Your task to perform on an android device: Search for sushi restaurants on Maps Image 0: 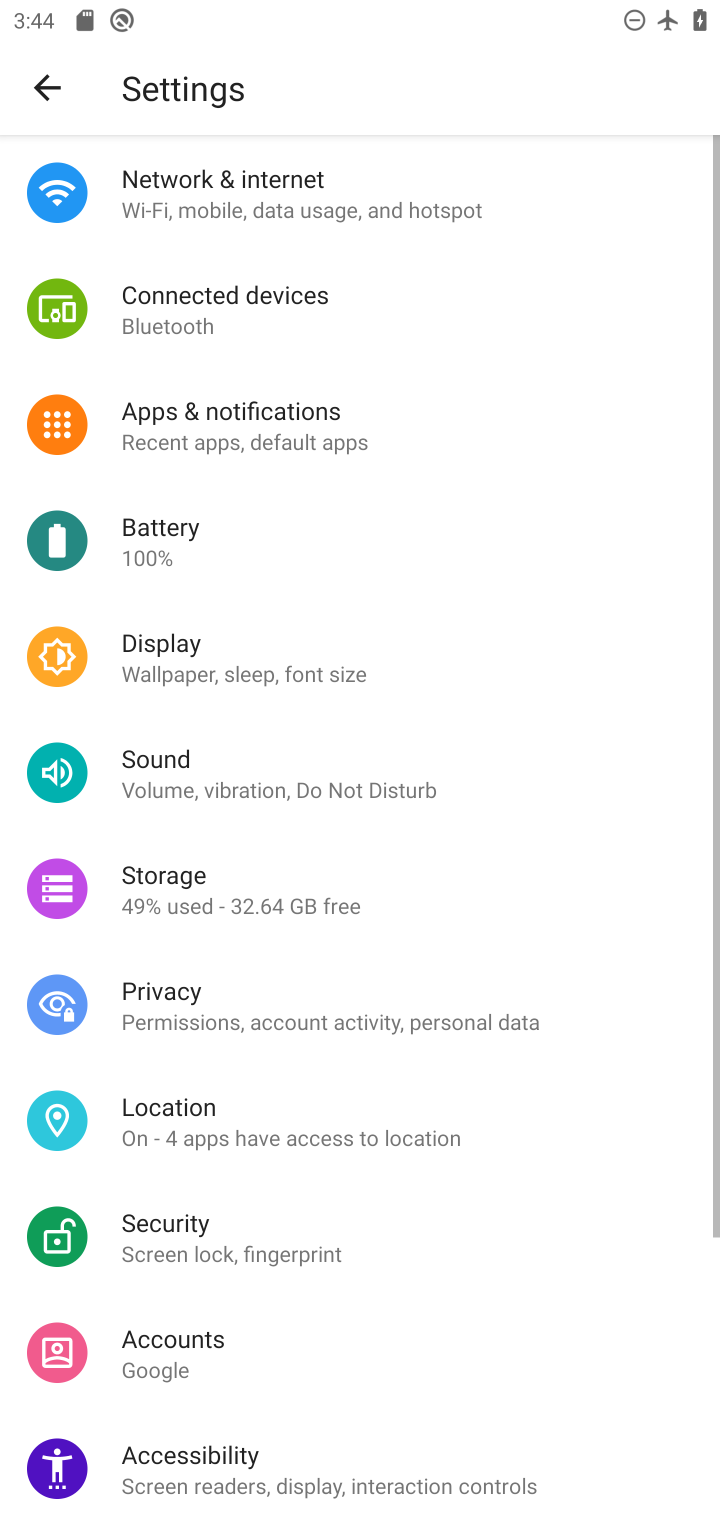
Step 0: press home button
Your task to perform on an android device: Search for sushi restaurants on Maps Image 1: 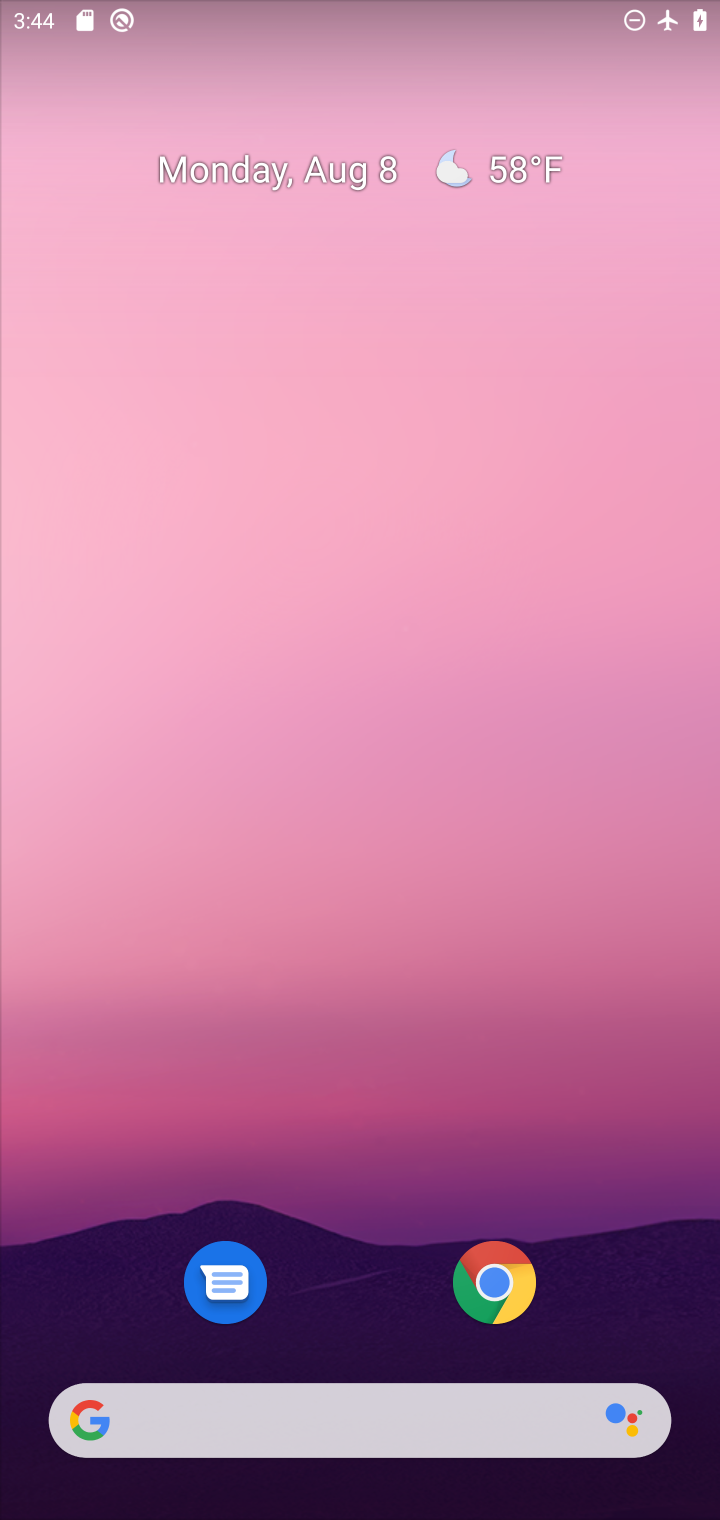
Step 1: drag from (352, 1286) to (458, 315)
Your task to perform on an android device: Search for sushi restaurants on Maps Image 2: 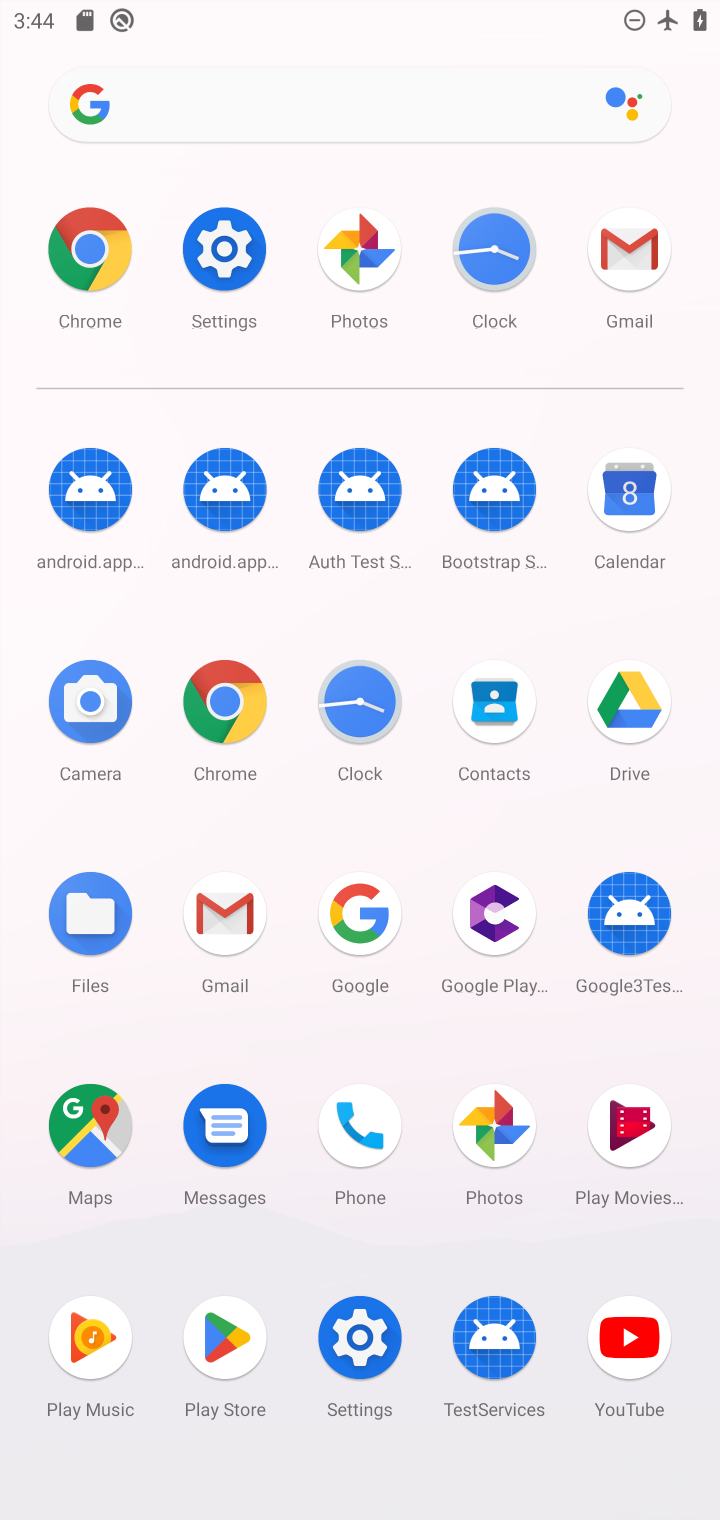
Step 2: click (86, 1119)
Your task to perform on an android device: Search for sushi restaurants on Maps Image 3: 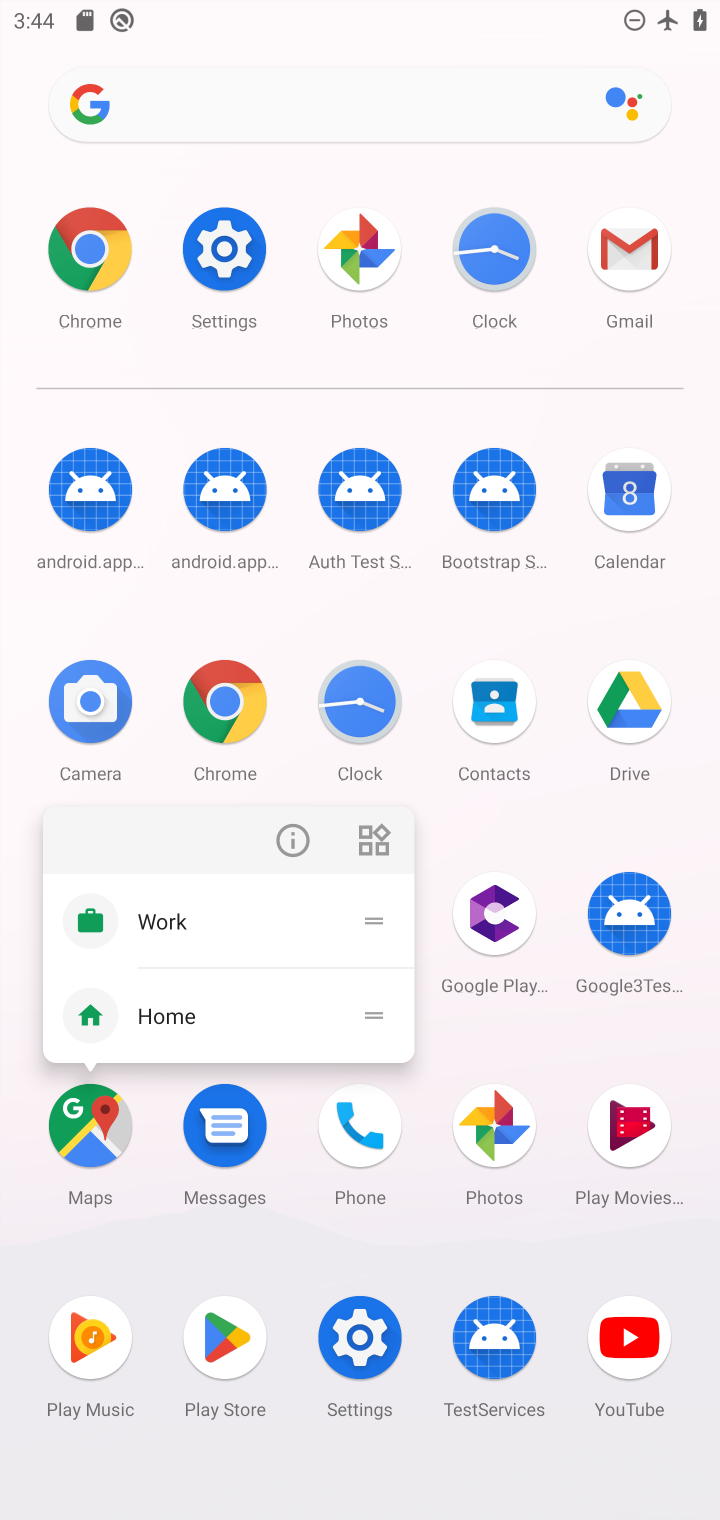
Step 3: click (84, 1125)
Your task to perform on an android device: Search for sushi restaurants on Maps Image 4: 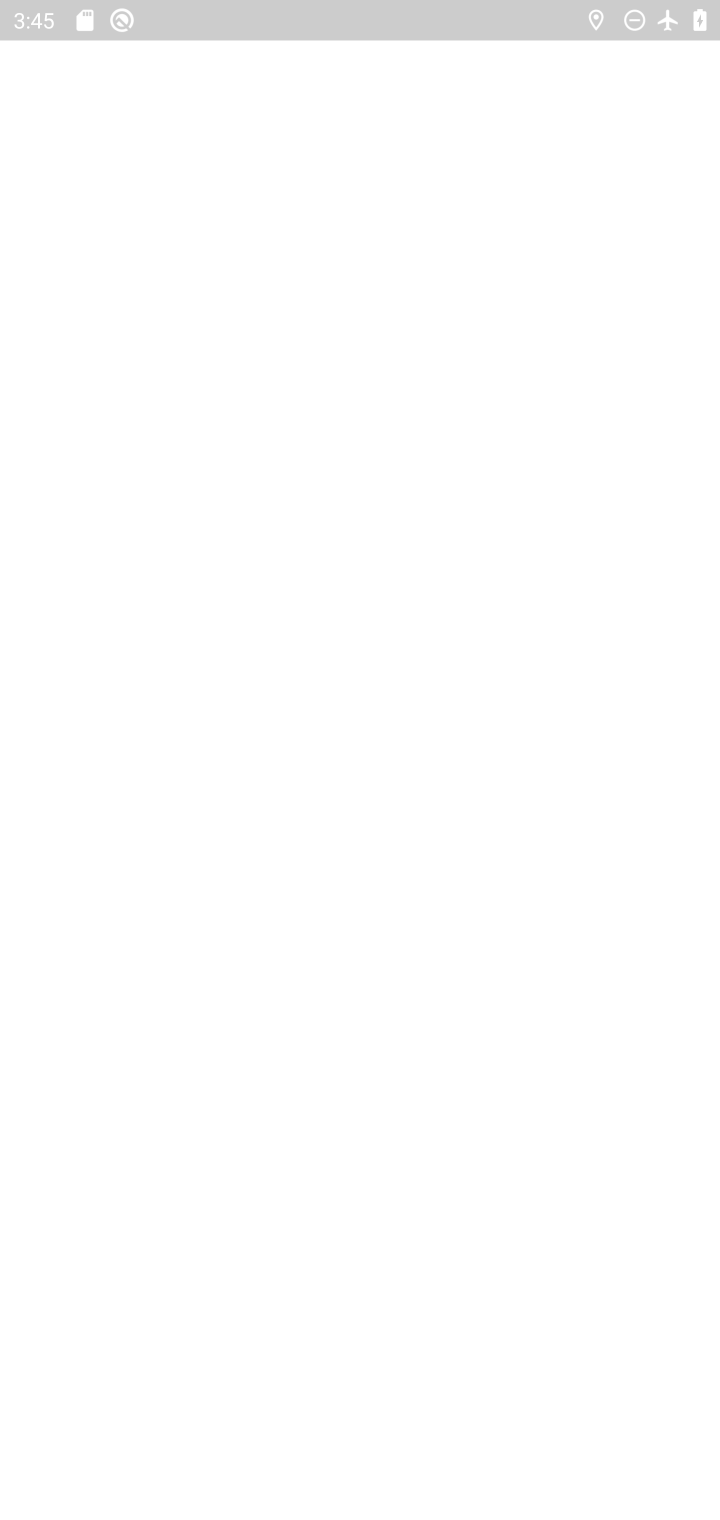
Step 4: task complete